Your task to perform on an android device: Open the phone app and click the voicemail tab. Image 0: 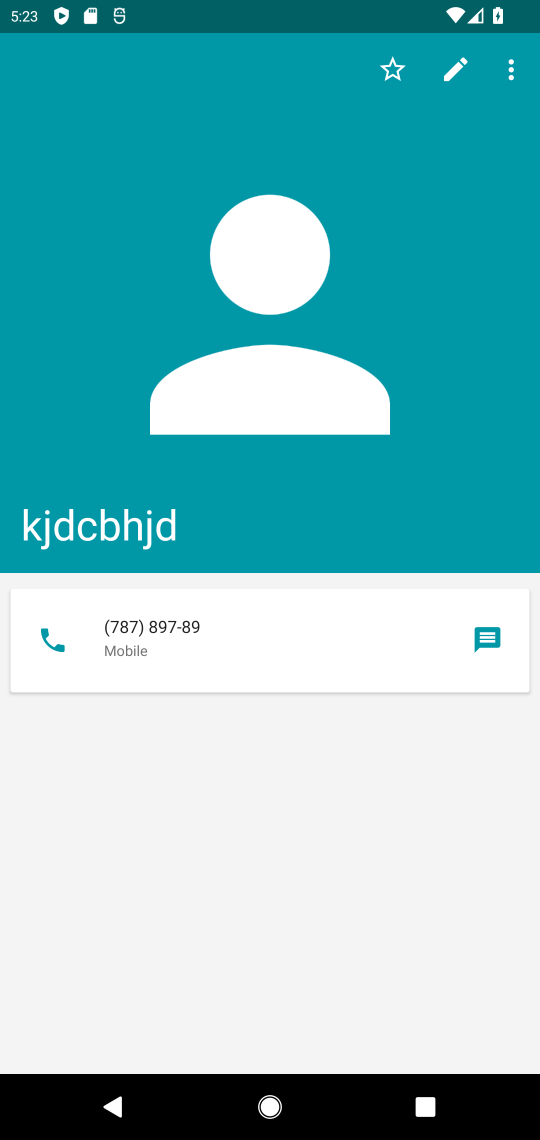
Step 0: press home button
Your task to perform on an android device: Open the phone app and click the voicemail tab. Image 1: 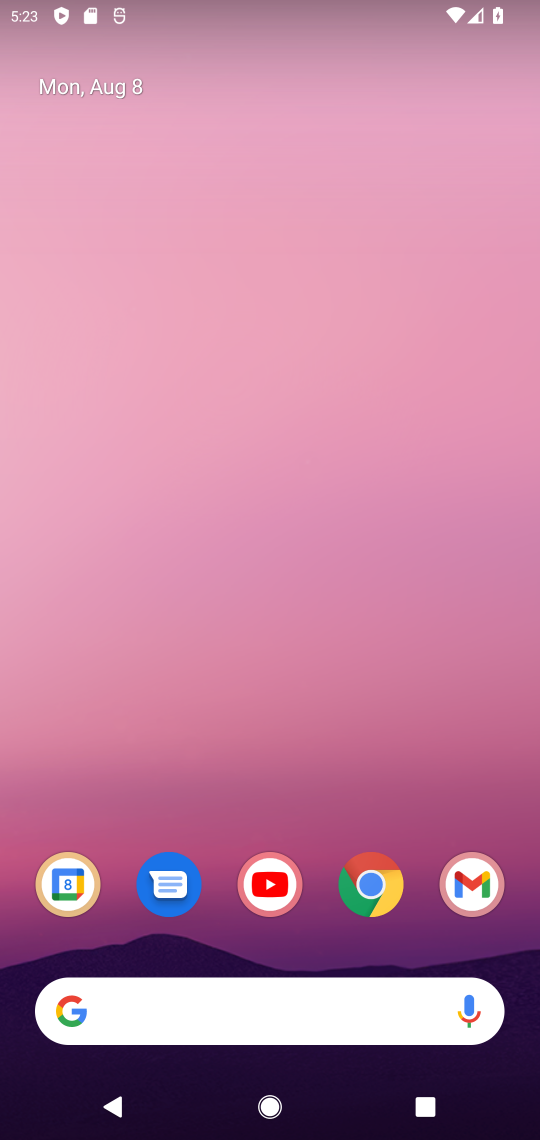
Step 1: drag from (315, 842) to (340, 16)
Your task to perform on an android device: Open the phone app and click the voicemail tab. Image 2: 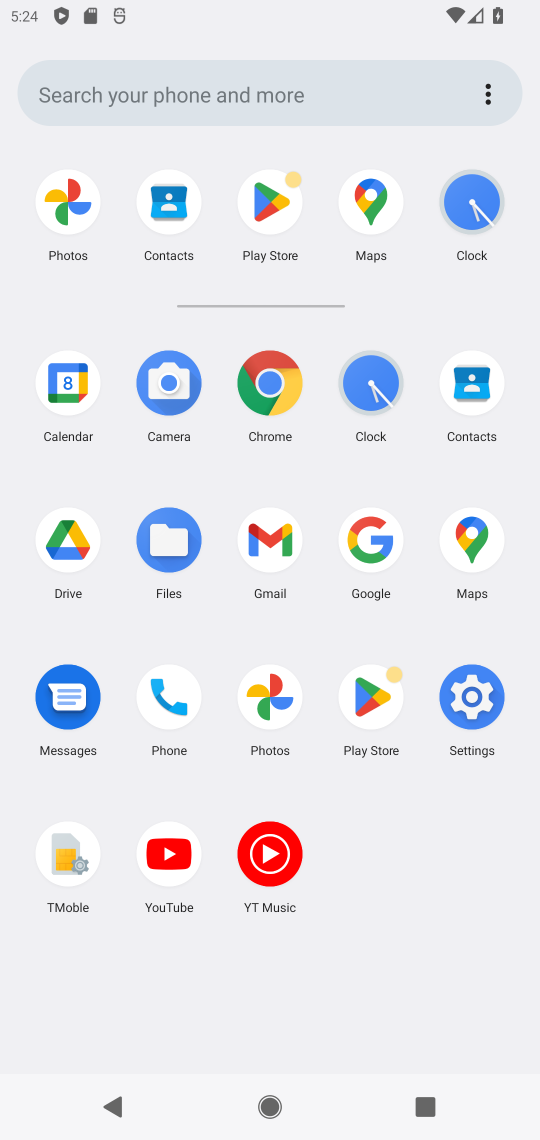
Step 2: click (160, 714)
Your task to perform on an android device: Open the phone app and click the voicemail tab. Image 3: 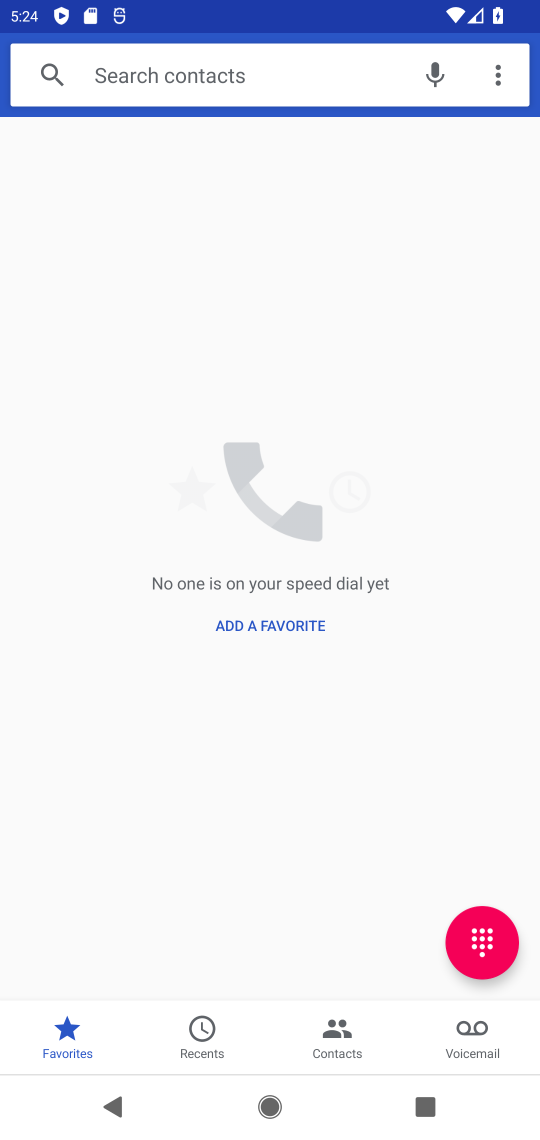
Step 3: click (479, 1043)
Your task to perform on an android device: Open the phone app and click the voicemail tab. Image 4: 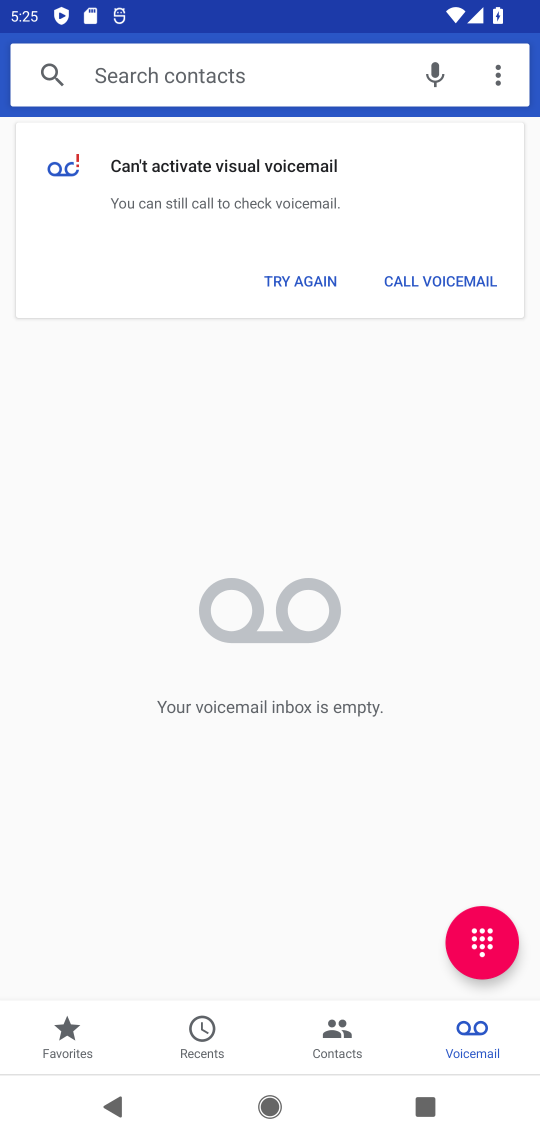
Step 4: task complete